Your task to perform on an android device: Open Wikipedia Image 0: 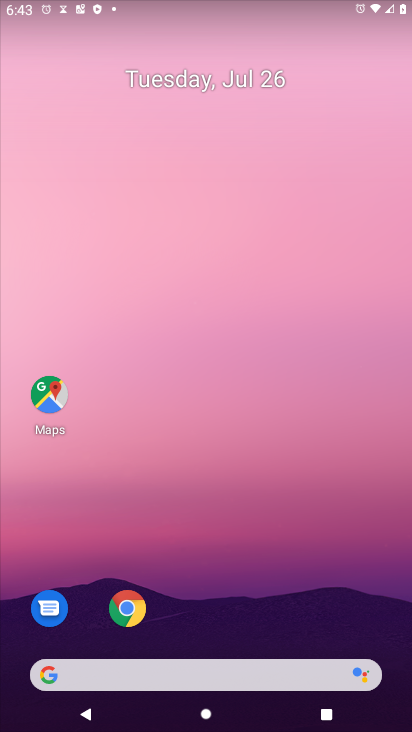
Step 0: press home button
Your task to perform on an android device: Open Wikipedia Image 1: 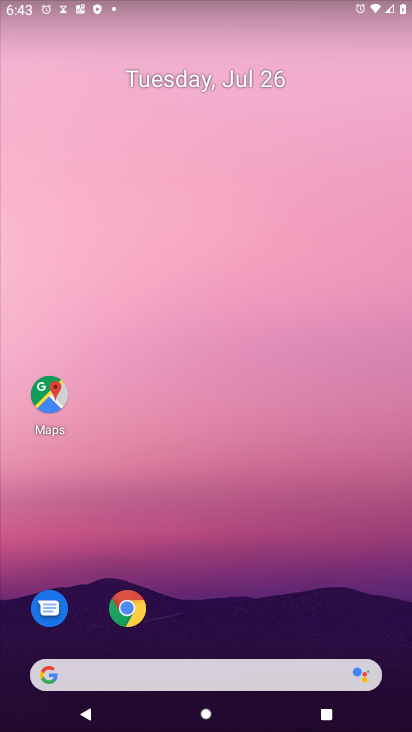
Step 1: click (49, 680)
Your task to perform on an android device: Open Wikipedia Image 2: 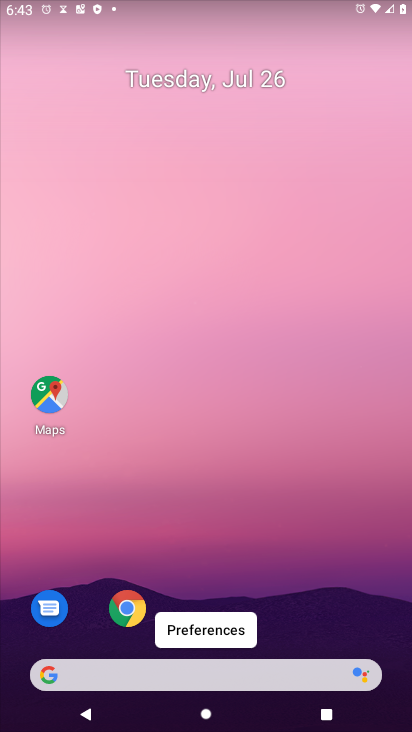
Step 2: click (39, 678)
Your task to perform on an android device: Open Wikipedia Image 3: 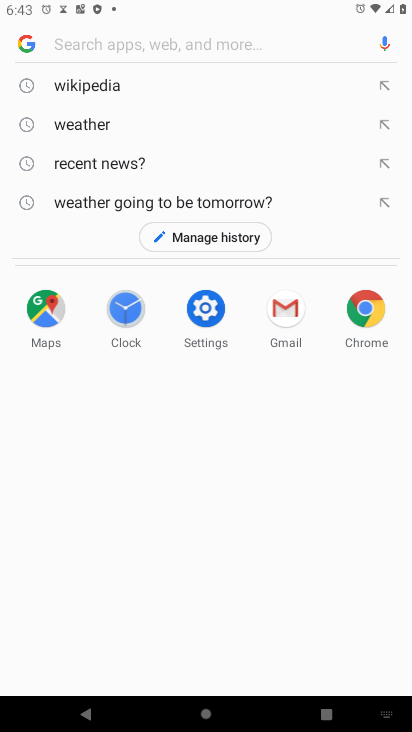
Step 3: click (96, 90)
Your task to perform on an android device: Open Wikipedia Image 4: 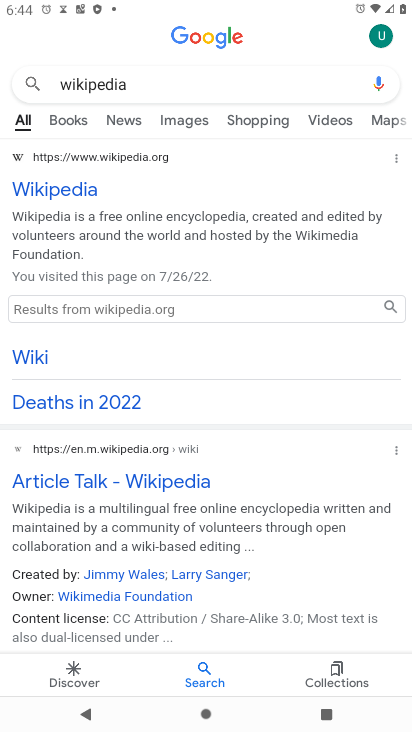
Step 4: click (45, 196)
Your task to perform on an android device: Open Wikipedia Image 5: 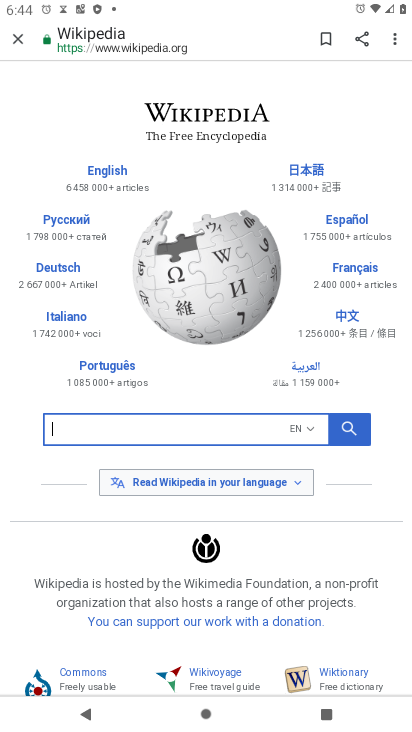
Step 5: task complete